Your task to perform on an android device: What's the weather? Image 0: 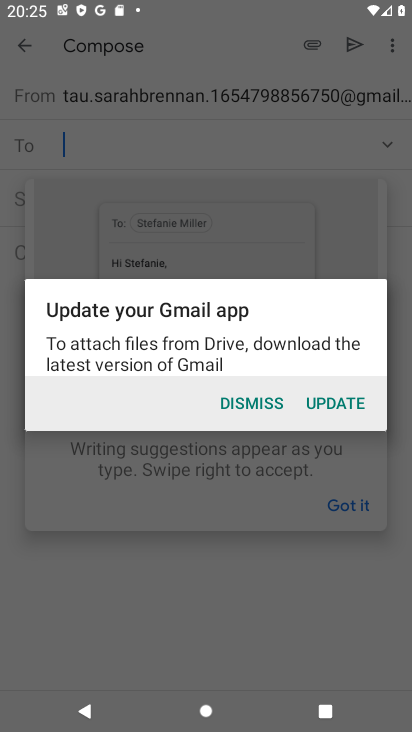
Step 0: press home button
Your task to perform on an android device: What's the weather? Image 1: 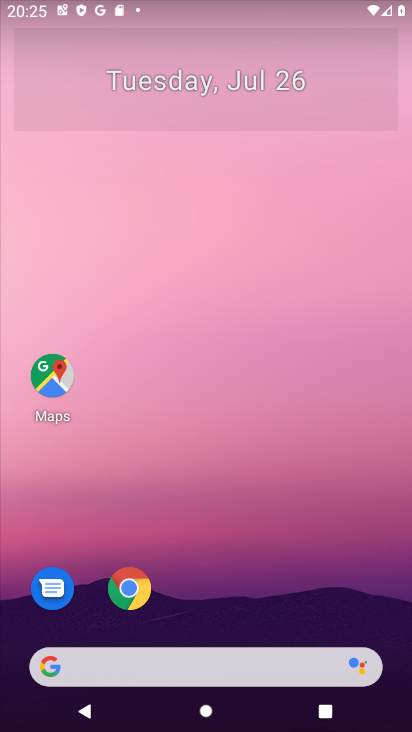
Step 1: click (35, 667)
Your task to perform on an android device: What's the weather? Image 2: 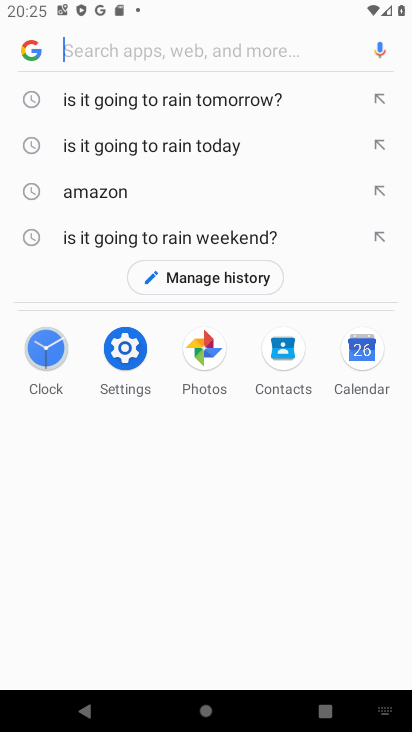
Step 2: type "What's the weather?"
Your task to perform on an android device: What's the weather? Image 3: 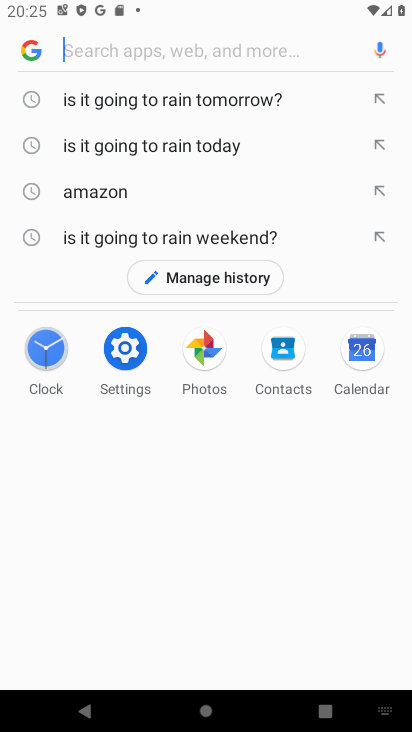
Step 3: click (150, 52)
Your task to perform on an android device: What's the weather? Image 4: 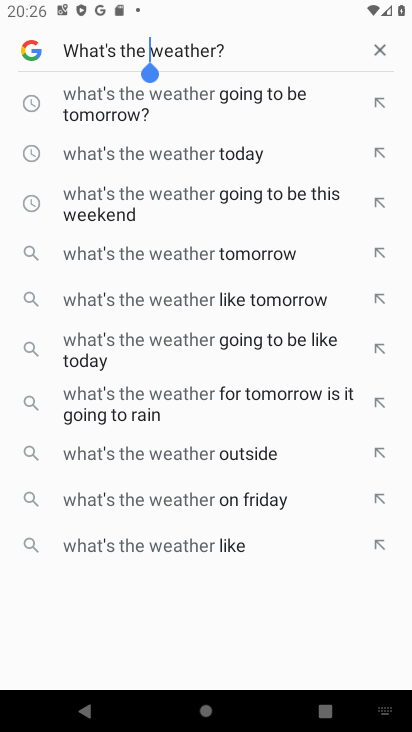
Step 4: press enter
Your task to perform on an android device: What's the weather? Image 5: 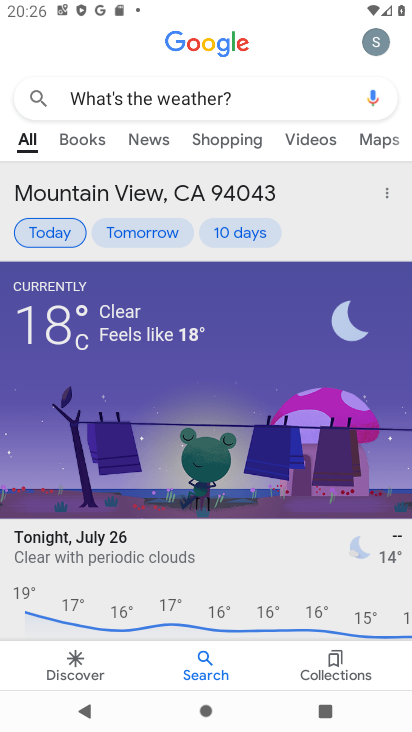
Step 5: task complete